Your task to perform on an android device: set the stopwatch Image 0: 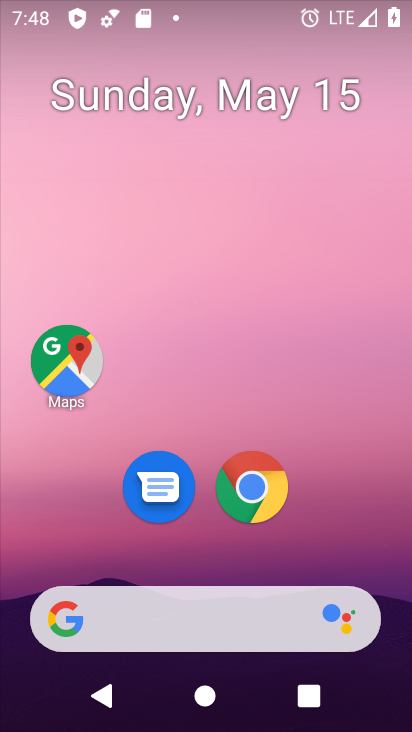
Step 0: drag from (396, 530) to (299, 151)
Your task to perform on an android device: set the stopwatch Image 1: 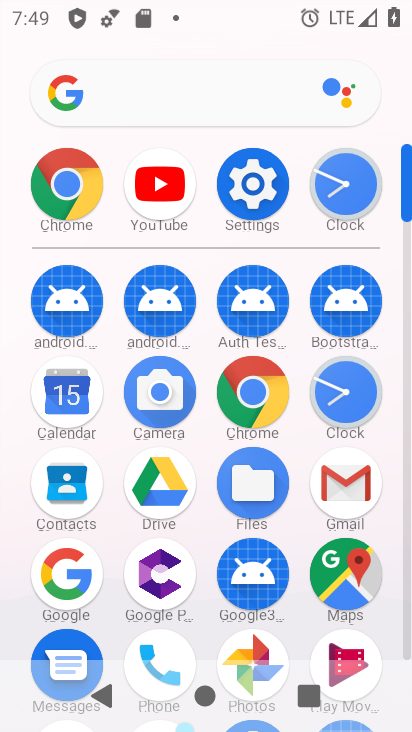
Step 1: drag from (317, 622) to (336, 262)
Your task to perform on an android device: set the stopwatch Image 2: 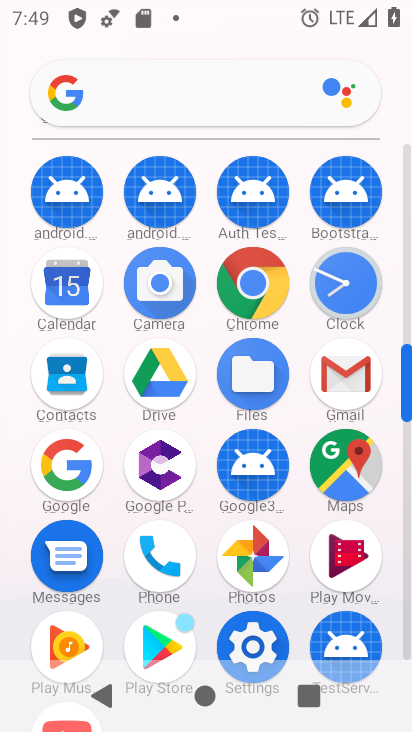
Step 2: drag from (293, 591) to (339, 258)
Your task to perform on an android device: set the stopwatch Image 3: 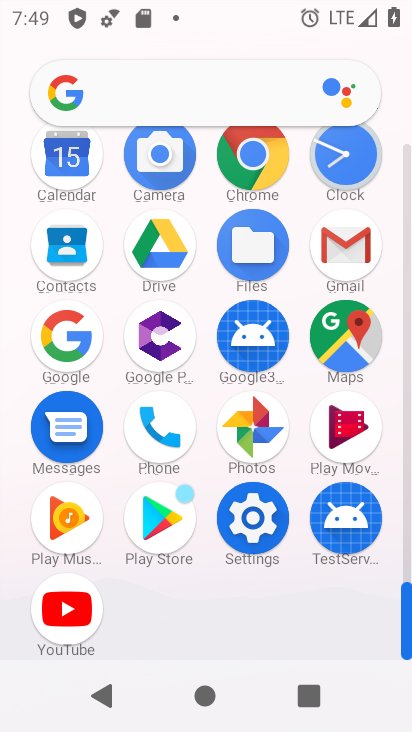
Step 3: click (344, 159)
Your task to perform on an android device: set the stopwatch Image 4: 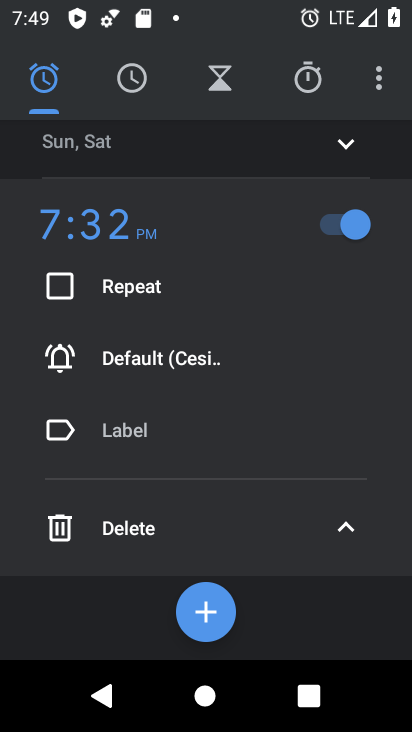
Step 4: click (312, 82)
Your task to perform on an android device: set the stopwatch Image 5: 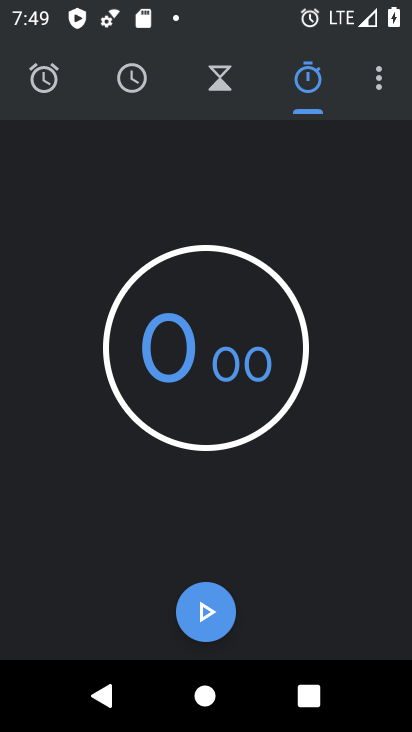
Step 5: click (218, 616)
Your task to perform on an android device: set the stopwatch Image 6: 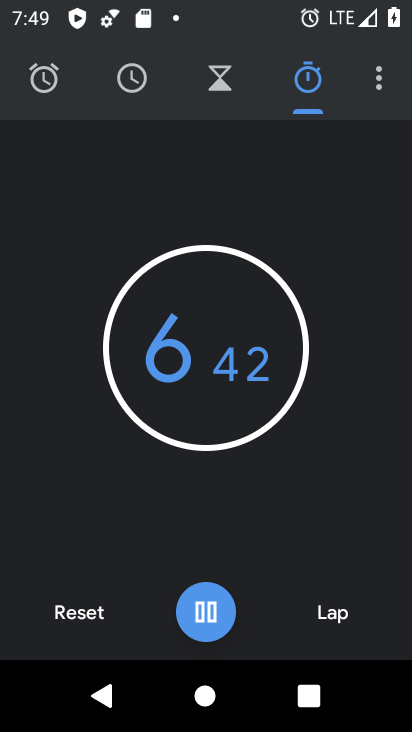
Step 6: click (212, 619)
Your task to perform on an android device: set the stopwatch Image 7: 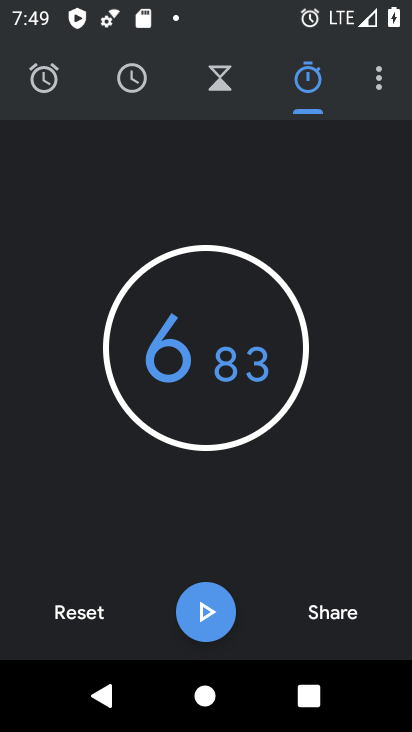
Step 7: task complete